Your task to perform on an android device: add a contact in the contacts app Image 0: 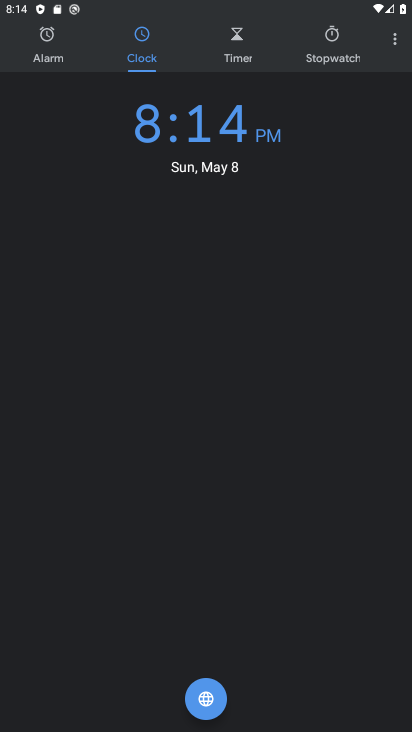
Step 0: drag from (259, 541) to (271, 247)
Your task to perform on an android device: add a contact in the contacts app Image 1: 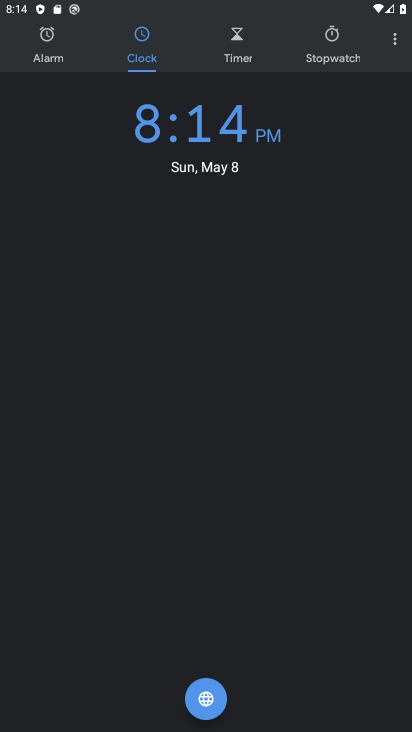
Step 1: click (310, 72)
Your task to perform on an android device: add a contact in the contacts app Image 2: 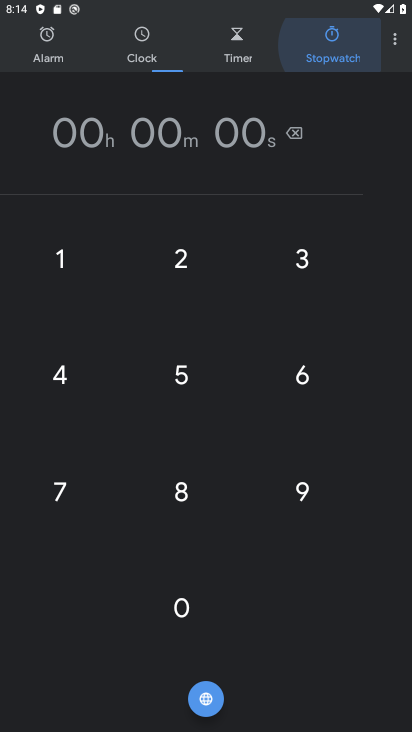
Step 2: click (312, 67)
Your task to perform on an android device: add a contact in the contacts app Image 3: 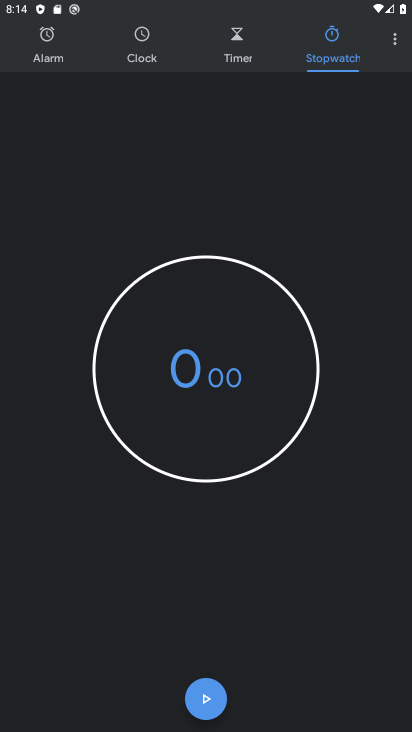
Step 3: press home button
Your task to perform on an android device: add a contact in the contacts app Image 4: 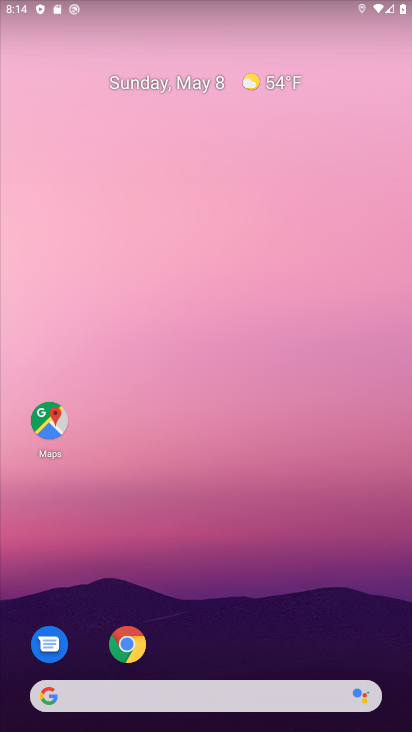
Step 4: drag from (210, 668) to (335, 80)
Your task to perform on an android device: add a contact in the contacts app Image 5: 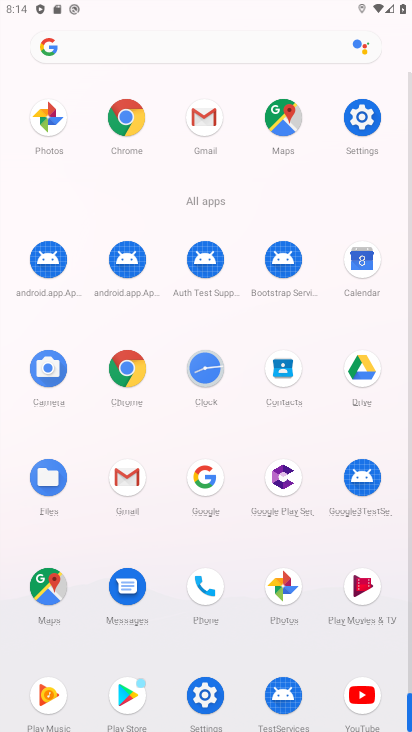
Step 5: drag from (169, 667) to (291, 196)
Your task to perform on an android device: add a contact in the contacts app Image 6: 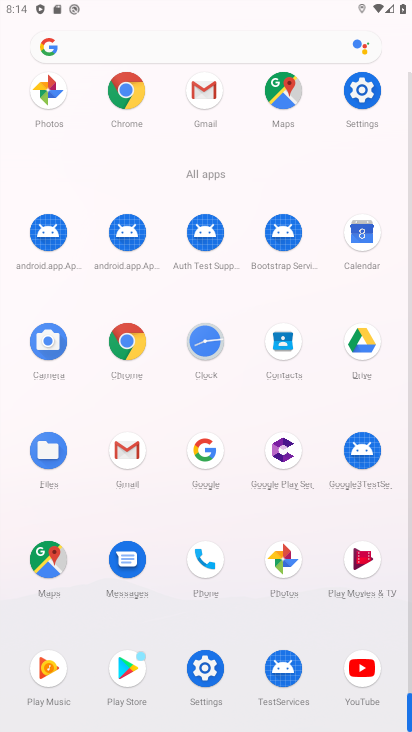
Step 6: click (293, 337)
Your task to perform on an android device: add a contact in the contacts app Image 7: 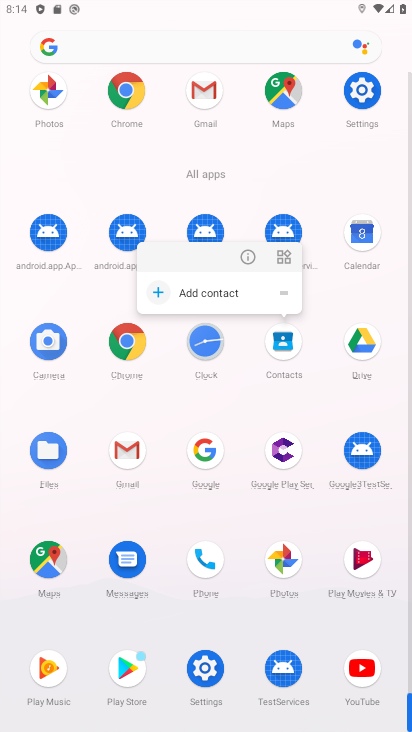
Step 7: click (243, 264)
Your task to perform on an android device: add a contact in the contacts app Image 8: 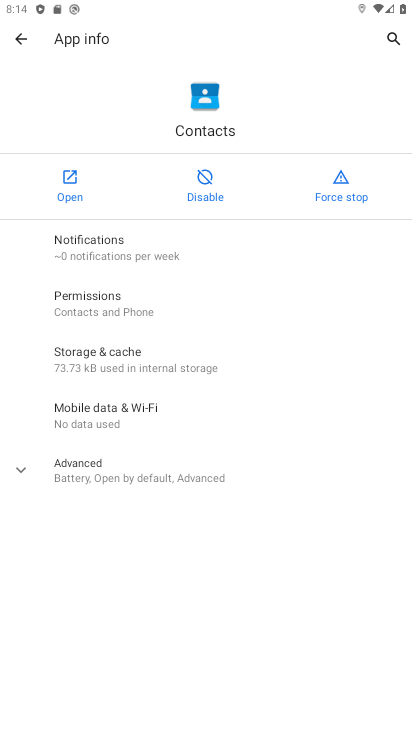
Step 8: click (55, 173)
Your task to perform on an android device: add a contact in the contacts app Image 9: 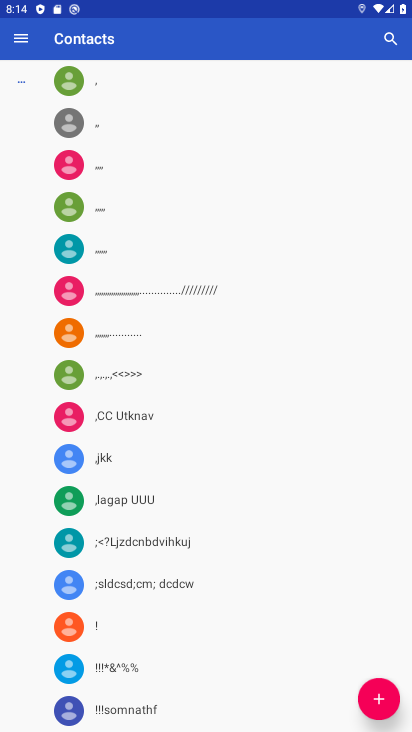
Step 9: click (373, 693)
Your task to perform on an android device: add a contact in the contacts app Image 10: 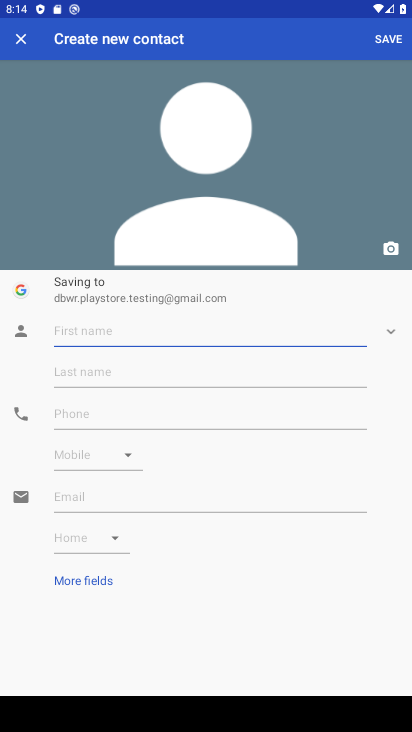
Step 10: click (157, 323)
Your task to perform on an android device: add a contact in the contacts app Image 11: 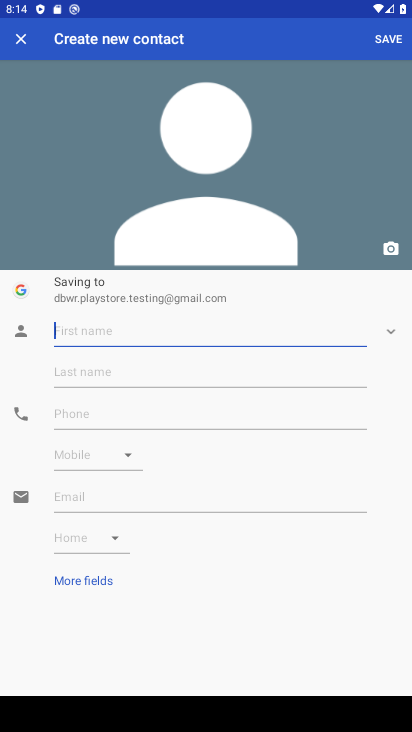
Step 11: click (143, 326)
Your task to perform on an android device: add a contact in the contacts app Image 12: 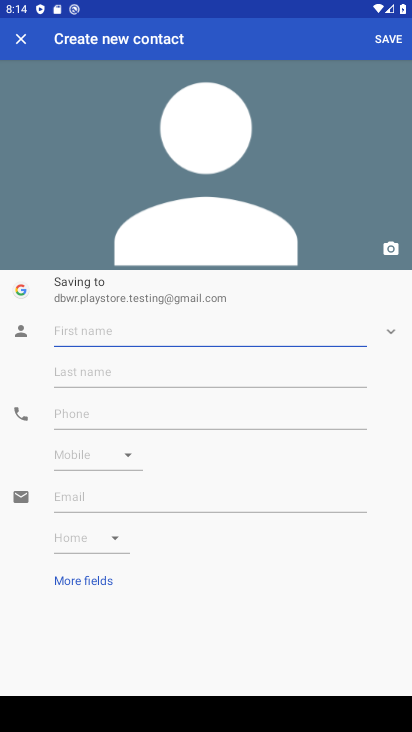
Step 12: type "hk"
Your task to perform on an android device: add a contact in the contacts app Image 13: 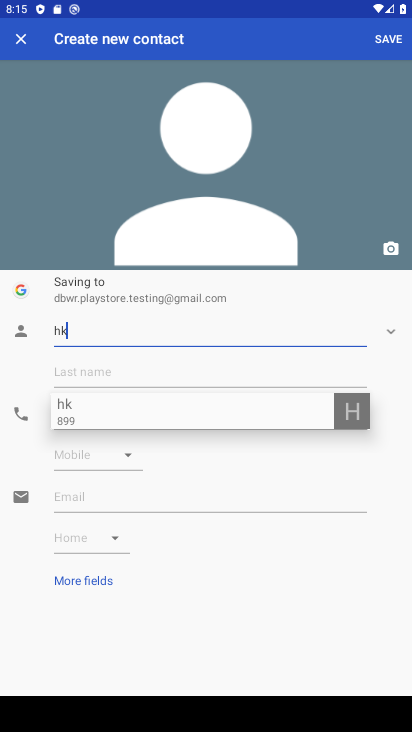
Step 13: type "u"
Your task to perform on an android device: add a contact in the contacts app Image 14: 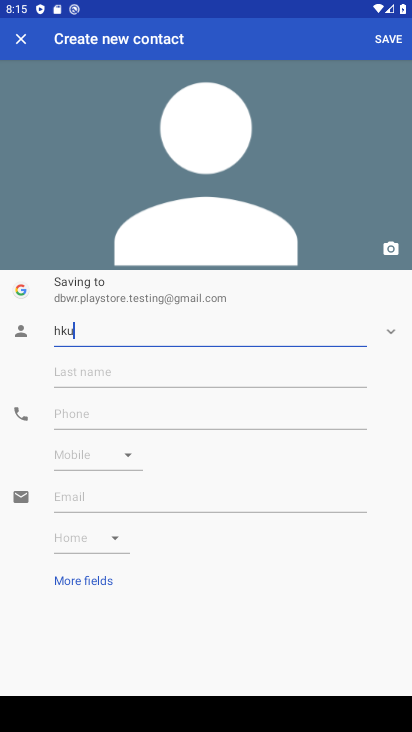
Step 14: click (390, 35)
Your task to perform on an android device: add a contact in the contacts app Image 15: 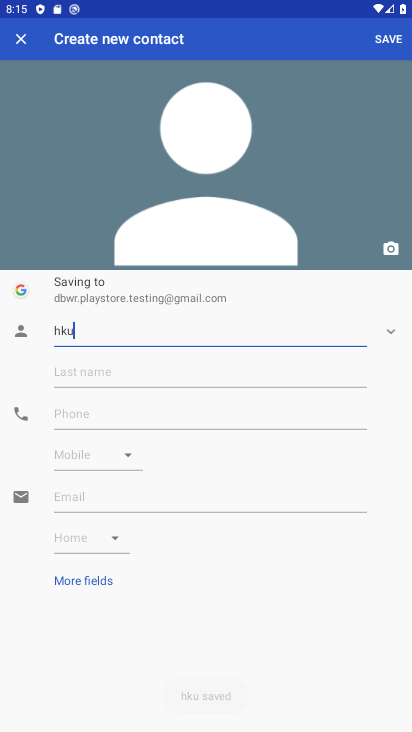
Step 15: task complete